Your task to perform on an android device: Open accessibility settings Image 0: 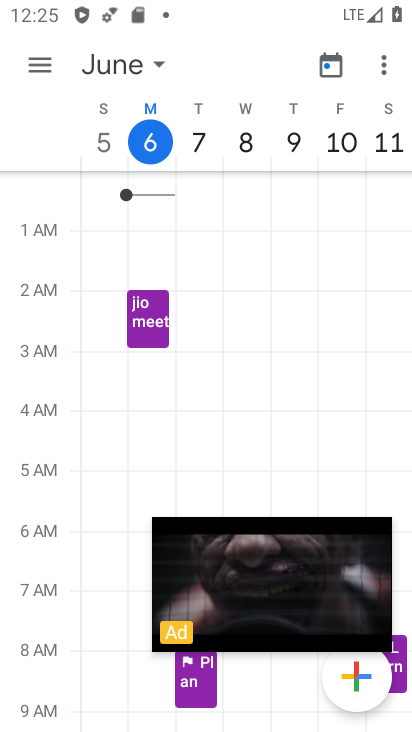
Step 0: click (369, 543)
Your task to perform on an android device: Open accessibility settings Image 1: 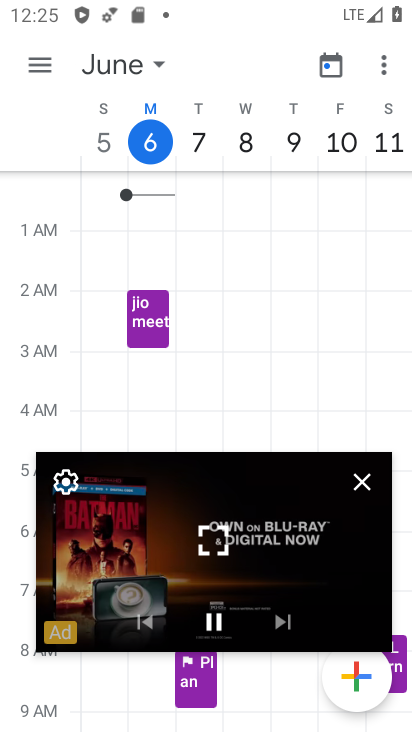
Step 1: click (360, 483)
Your task to perform on an android device: Open accessibility settings Image 2: 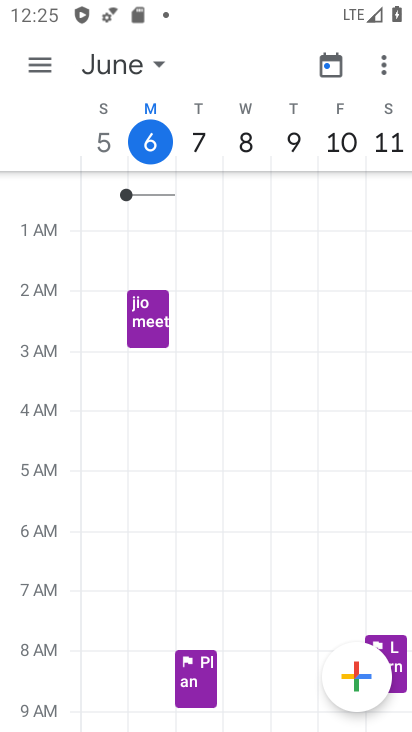
Step 2: press home button
Your task to perform on an android device: Open accessibility settings Image 3: 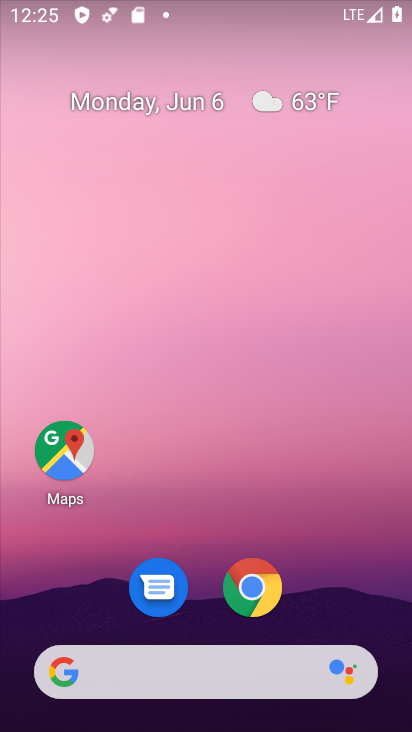
Step 3: drag from (335, 581) to (294, 194)
Your task to perform on an android device: Open accessibility settings Image 4: 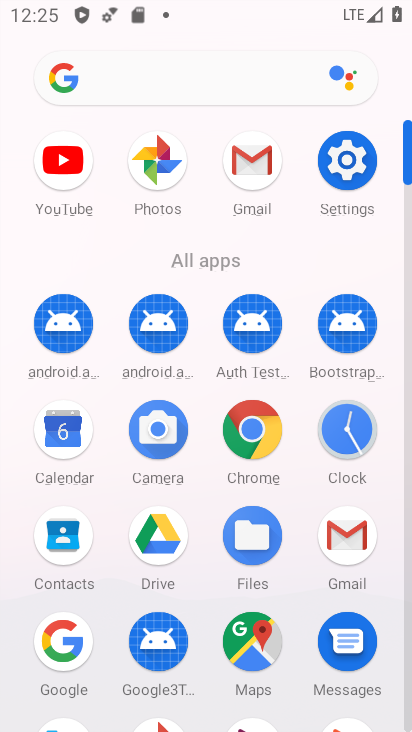
Step 4: click (357, 163)
Your task to perform on an android device: Open accessibility settings Image 5: 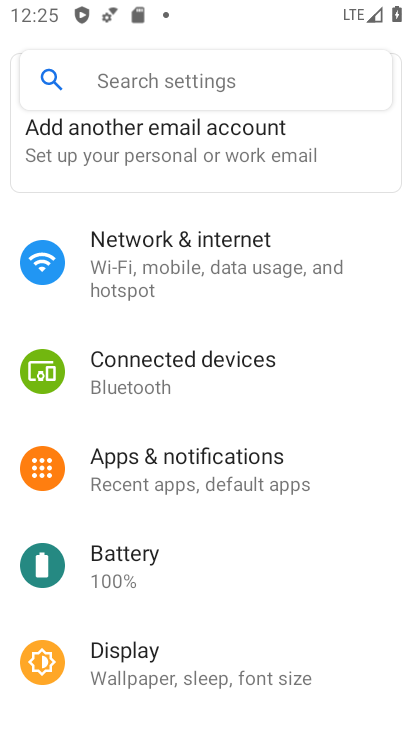
Step 5: drag from (264, 632) to (248, 166)
Your task to perform on an android device: Open accessibility settings Image 6: 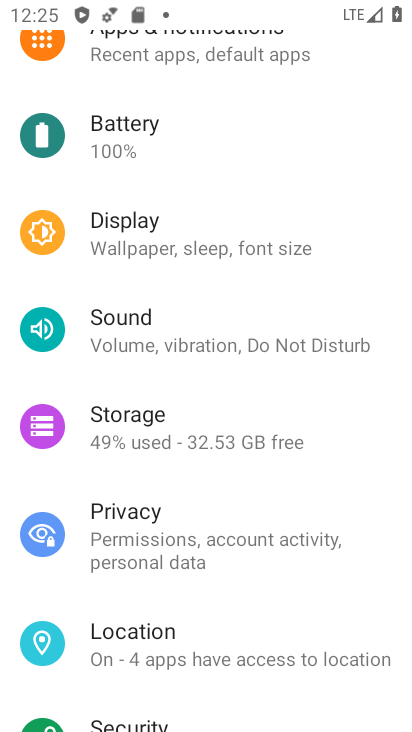
Step 6: drag from (215, 535) to (166, 160)
Your task to perform on an android device: Open accessibility settings Image 7: 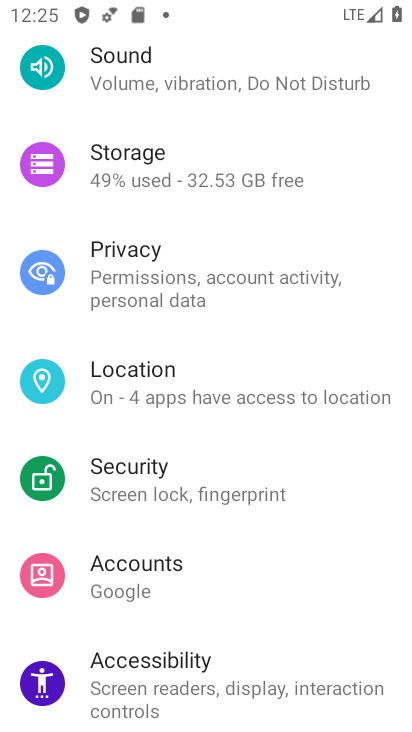
Step 7: click (191, 658)
Your task to perform on an android device: Open accessibility settings Image 8: 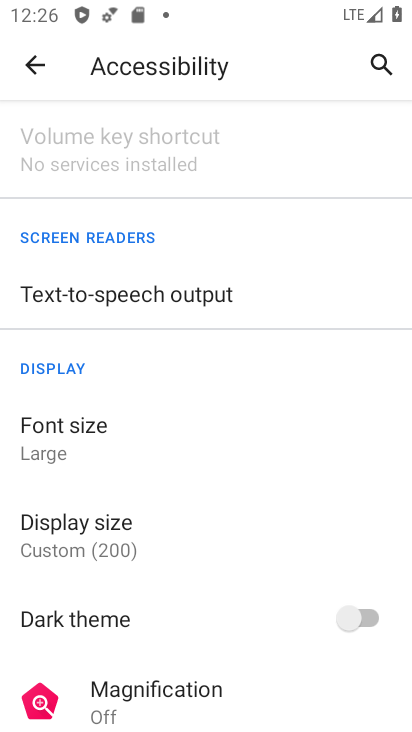
Step 8: task complete